Your task to perform on an android device: change your default location settings in chrome Image 0: 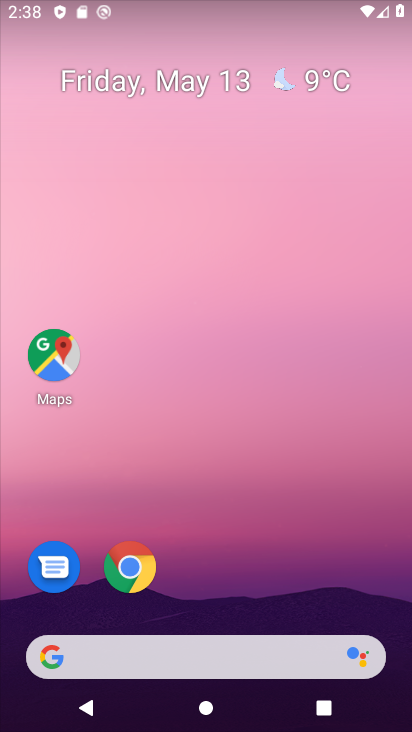
Step 0: click (135, 570)
Your task to perform on an android device: change your default location settings in chrome Image 1: 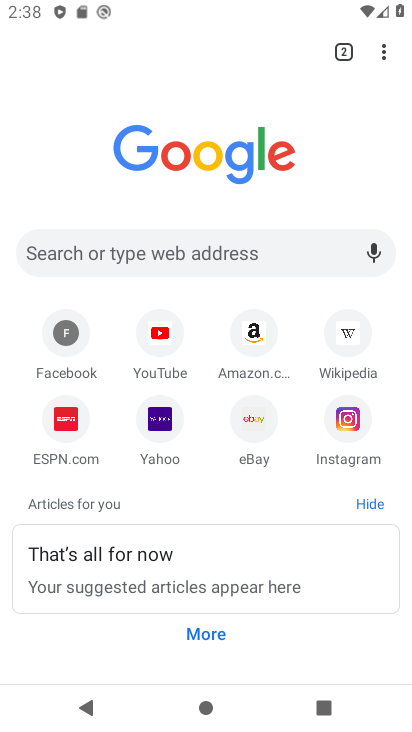
Step 1: click (386, 50)
Your task to perform on an android device: change your default location settings in chrome Image 2: 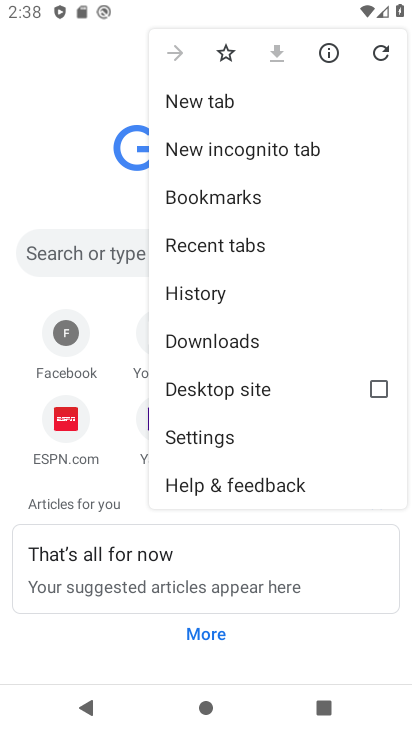
Step 2: click (222, 436)
Your task to perform on an android device: change your default location settings in chrome Image 3: 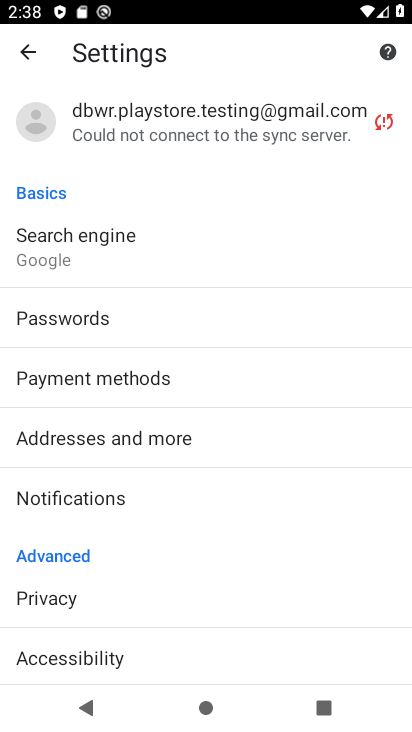
Step 3: drag from (233, 594) to (190, 218)
Your task to perform on an android device: change your default location settings in chrome Image 4: 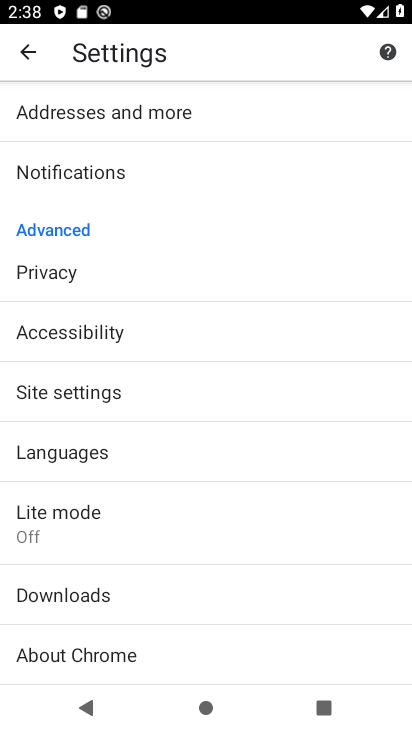
Step 4: click (64, 394)
Your task to perform on an android device: change your default location settings in chrome Image 5: 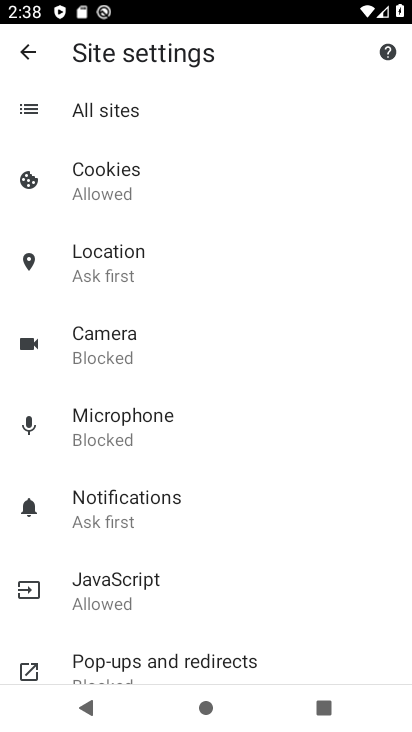
Step 5: click (101, 272)
Your task to perform on an android device: change your default location settings in chrome Image 6: 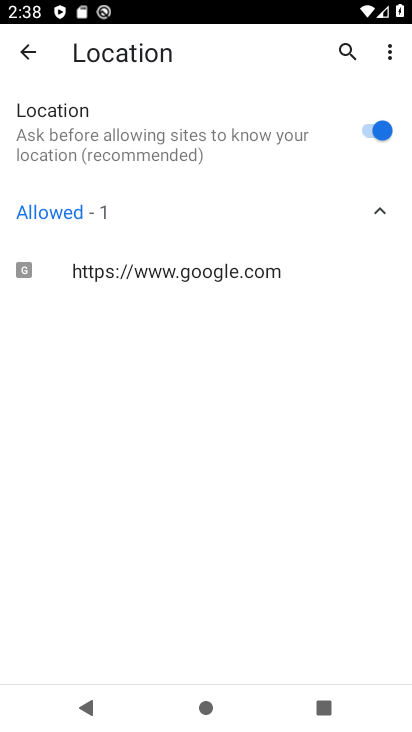
Step 6: click (377, 139)
Your task to perform on an android device: change your default location settings in chrome Image 7: 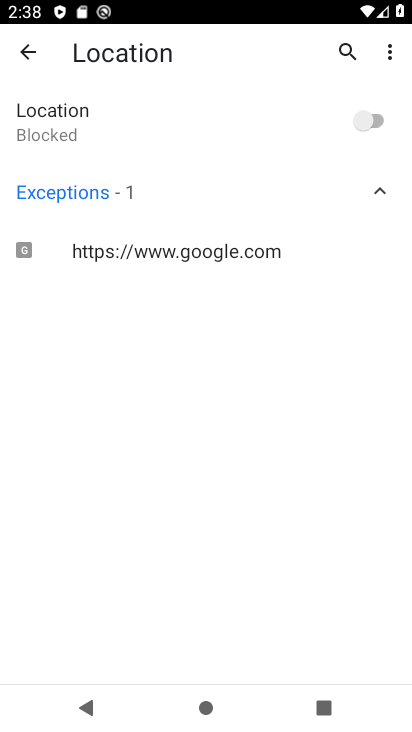
Step 7: task complete